Your task to perform on an android device: turn off notifications in google photos Image 0: 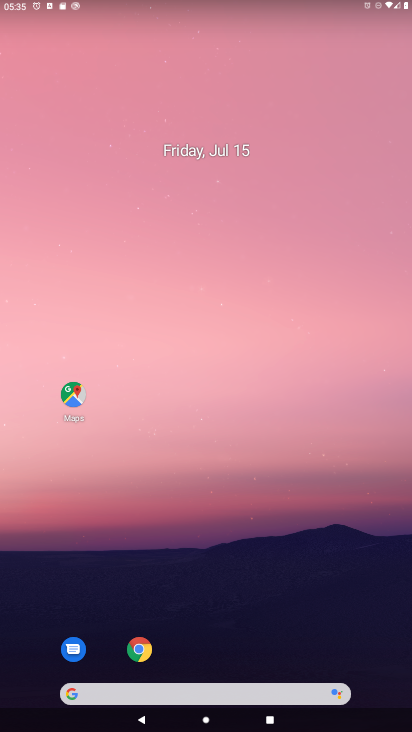
Step 0: drag from (379, 664) to (355, 119)
Your task to perform on an android device: turn off notifications in google photos Image 1: 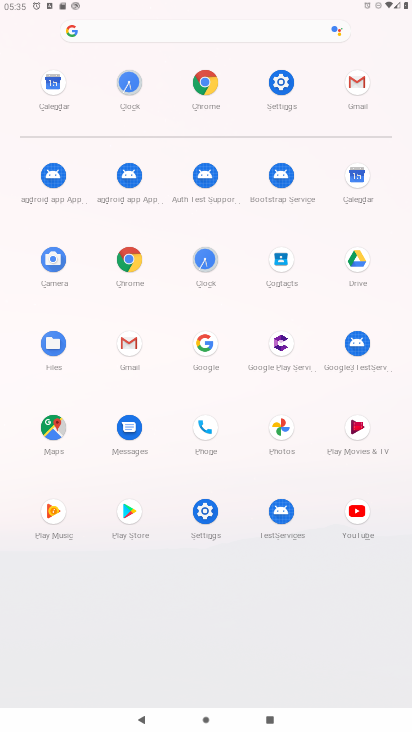
Step 1: click (277, 423)
Your task to perform on an android device: turn off notifications in google photos Image 2: 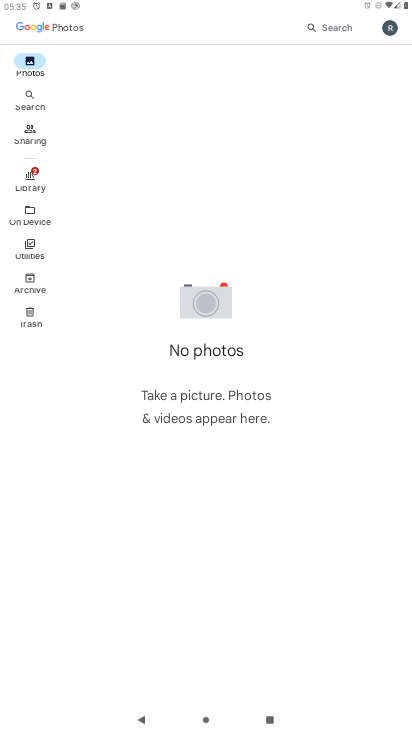
Step 2: click (387, 30)
Your task to perform on an android device: turn off notifications in google photos Image 3: 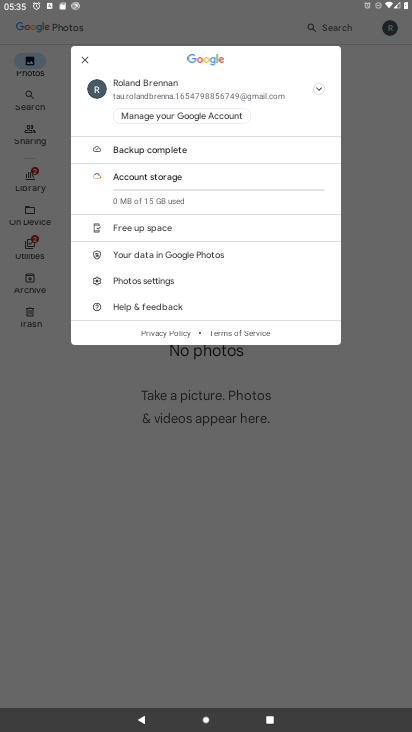
Step 3: click (129, 279)
Your task to perform on an android device: turn off notifications in google photos Image 4: 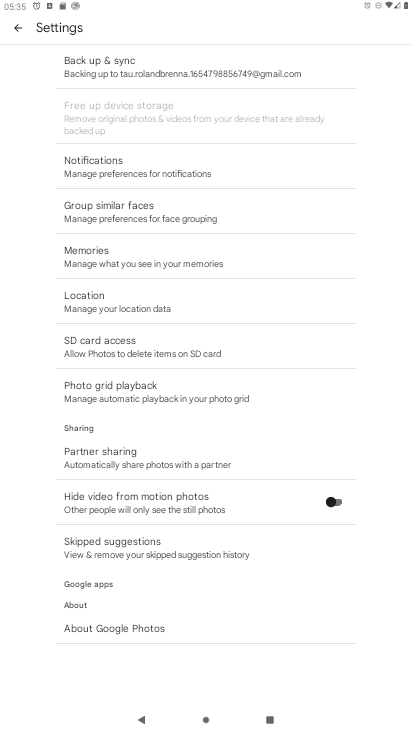
Step 4: click (84, 162)
Your task to perform on an android device: turn off notifications in google photos Image 5: 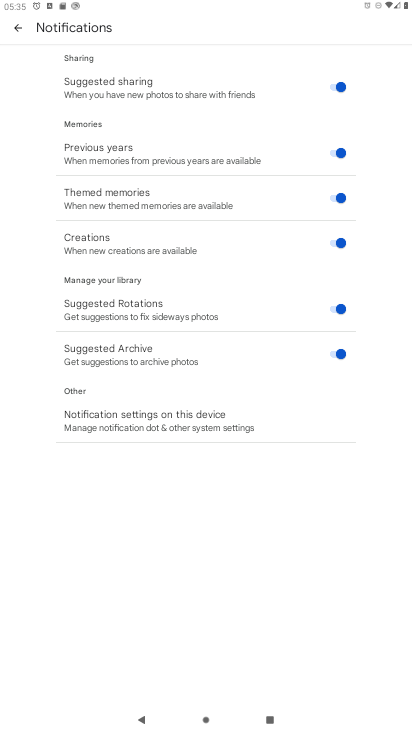
Step 5: click (121, 419)
Your task to perform on an android device: turn off notifications in google photos Image 6: 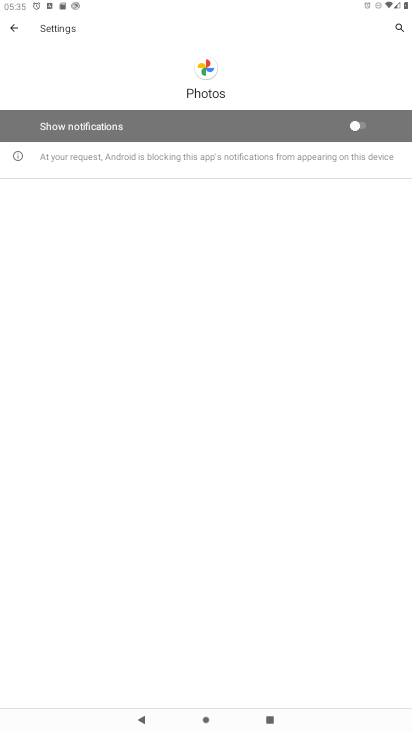
Step 6: task complete